Your task to perform on an android device: Do I have any events today? Image 0: 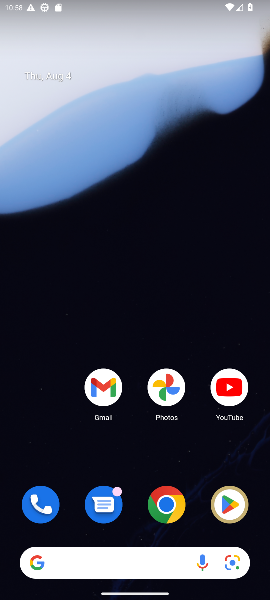
Step 0: drag from (133, 473) to (104, 20)
Your task to perform on an android device: Do I have any events today? Image 1: 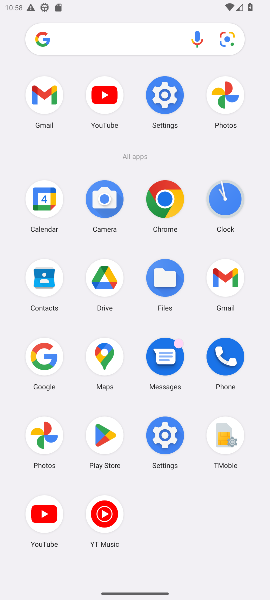
Step 1: click (50, 198)
Your task to perform on an android device: Do I have any events today? Image 2: 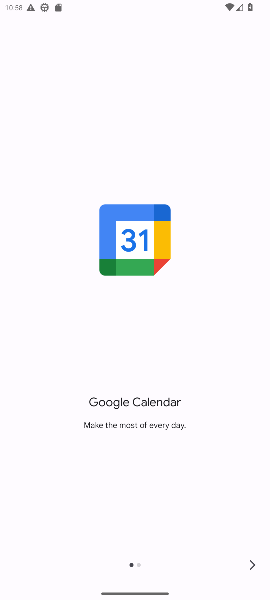
Step 2: click (254, 562)
Your task to perform on an android device: Do I have any events today? Image 3: 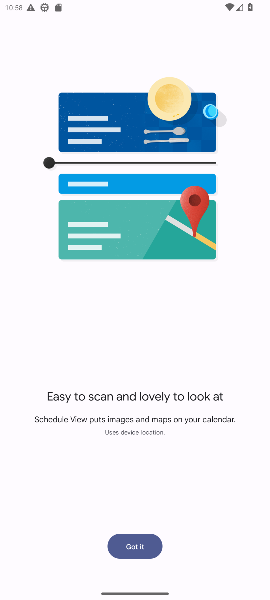
Step 3: click (146, 549)
Your task to perform on an android device: Do I have any events today? Image 4: 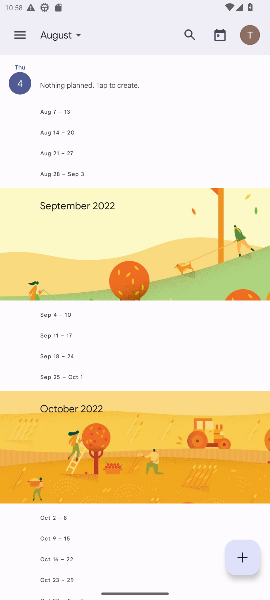
Step 4: task complete